Your task to perform on an android device: set an alarm Image 0: 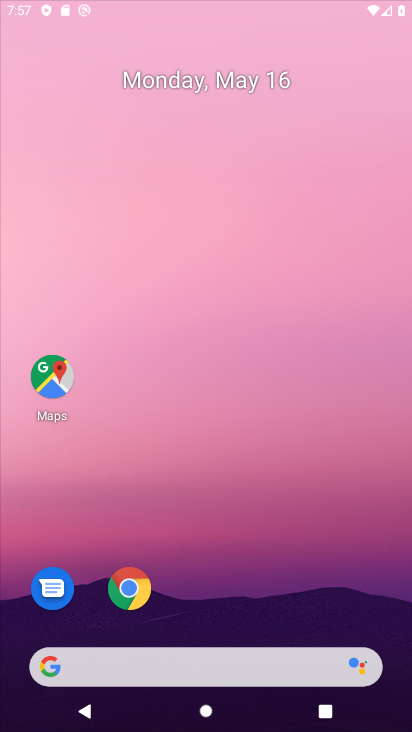
Step 0: drag from (158, 472) to (3, 122)
Your task to perform on an android device: set an alarm Image 1: 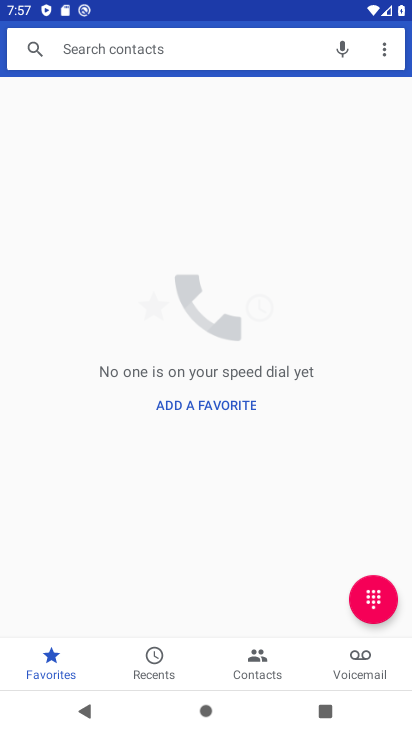
Step 1: press home button
Your task to perform on an android device: set an alarm Image 2: 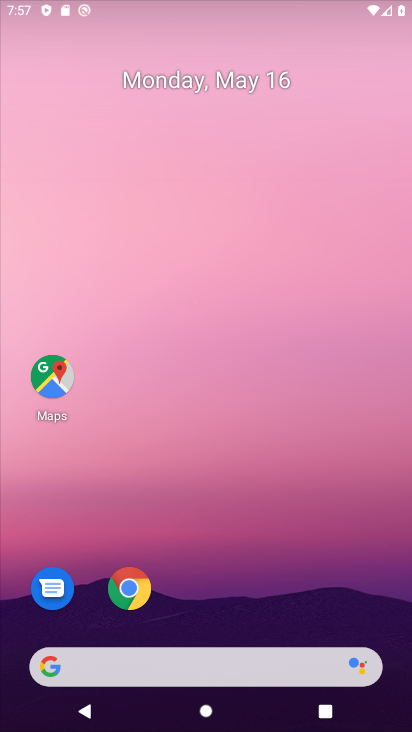
Step 2: drag from (242, 510) to (173, 159)
Your task to perform on an android device: set an alarm Image 3: 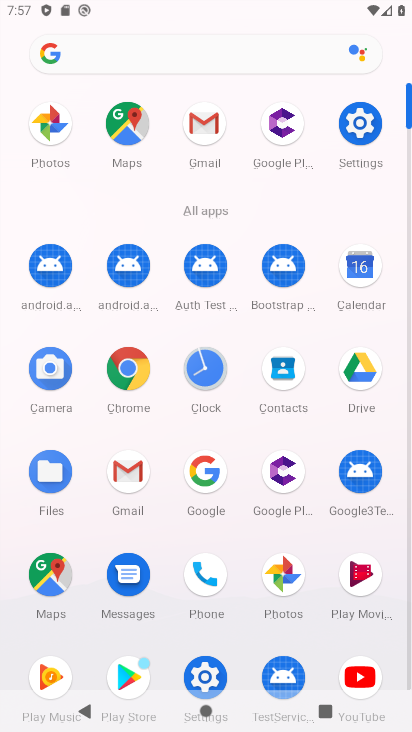
Step 3: click (209, 369)
Your task to perform on an android device: set an alarm Image 4: 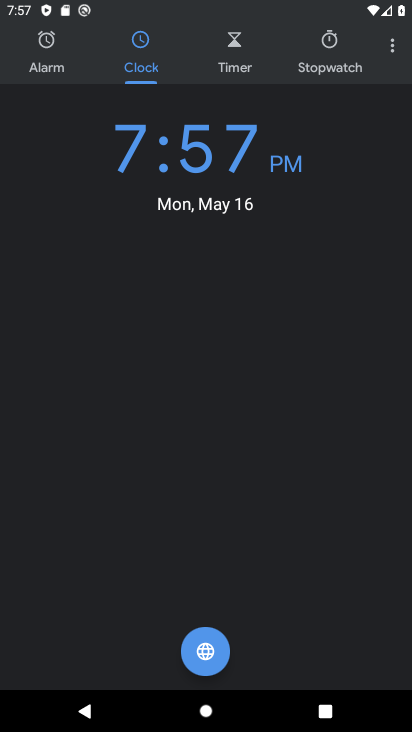
Step 4: click (49, 56)
Your task to perform on an android device: set an alarm Image 5: 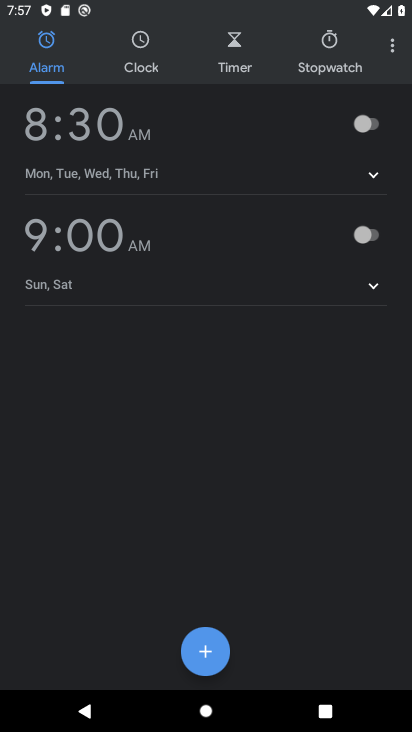
Step 5: click (363, 123)
Your task to perform on an android device: set an alarm Image 6: 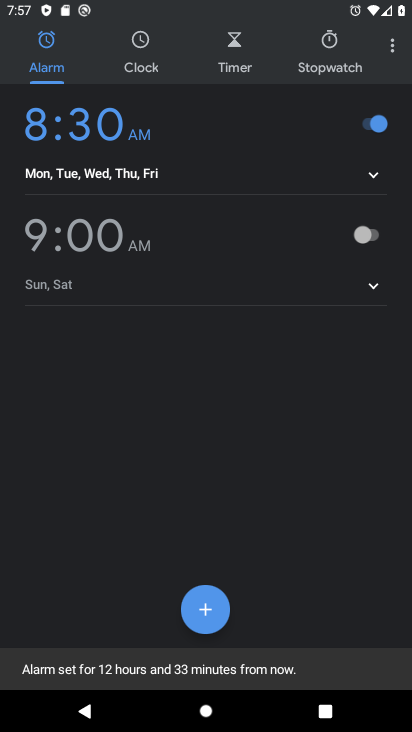
Step 6: task complete